Your task to perform on an android device: turn pop-ups off in chrome Image 0: 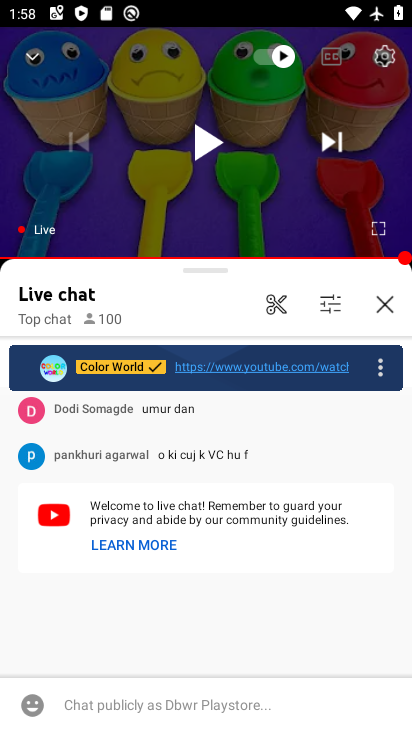
Step 0: press home button
Your task to perform on an android device: turn pop-ups off in chrome Image 1: 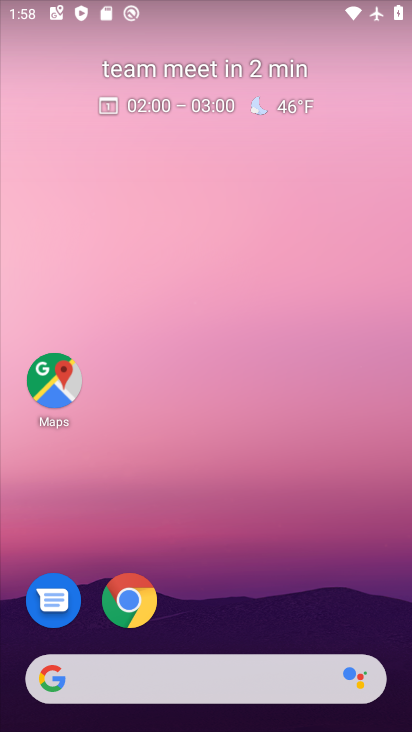
Step 1: click (110, 610)
Your task to perform on an android device: turn pop-ups off in chrome Image 2: 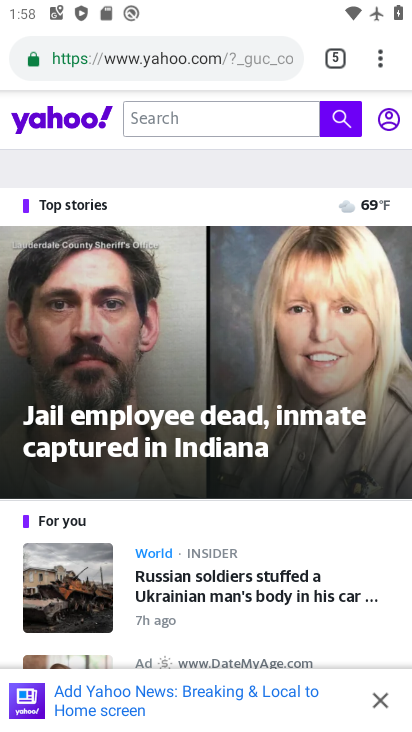
Step 2: click (372, 60)
Your task to perform on an android device: turn pop-ups off in chrome Image 3: 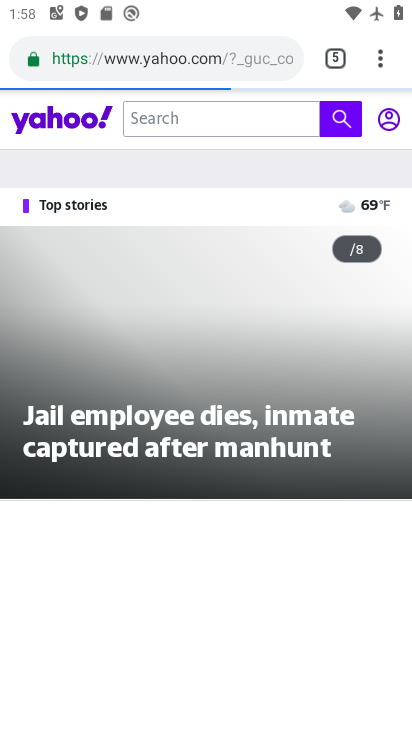
Step 3: drag from (372, 59) to (166, 616)
Your task to perform on an android device: turn pop-ups off in chrome Image 4: 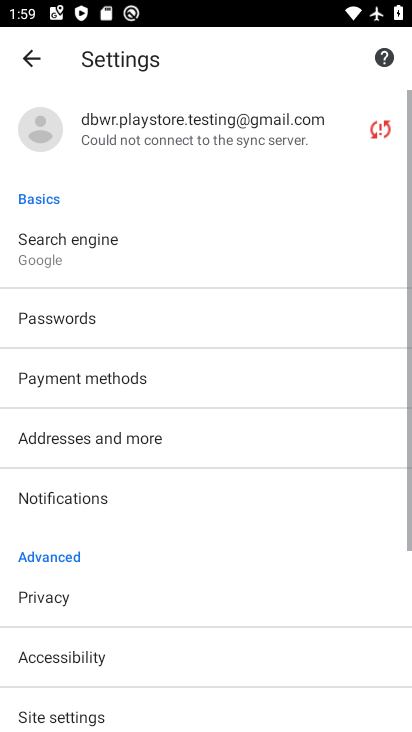
Step 4: drag from (165, 604) to (158, 141)
Your task to perform on an android device: turn pop-ups off in chrome Image 5: 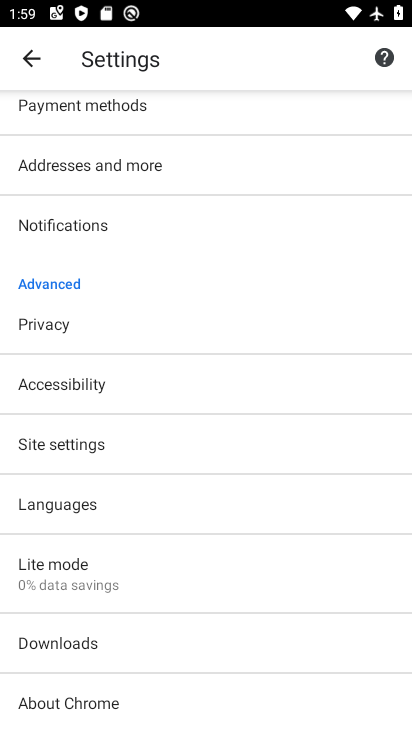
Step 5: click (82, 449)
Your task to perform on an android device: turn pop-ups off in chrome Image 6: 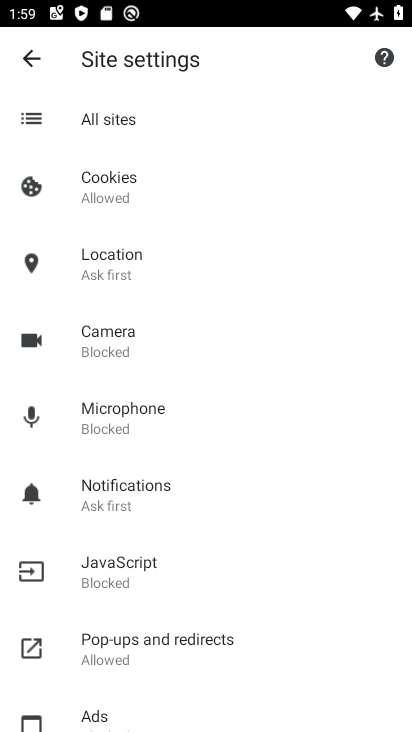
Step 6: click (108, 632)
Your task to perform on an android device: turn pop-ups off in chrome Image 7: 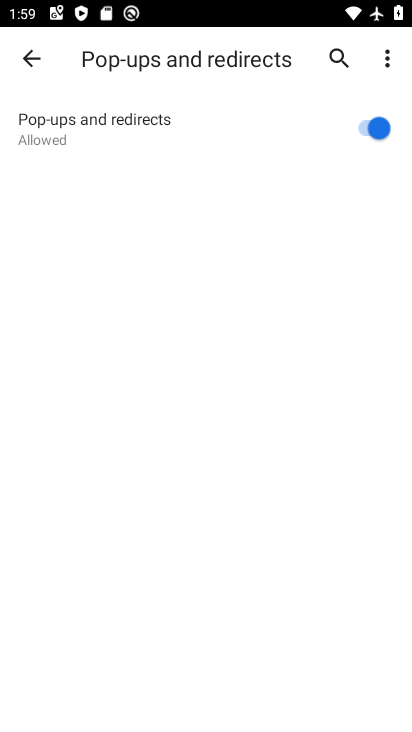
Step 7: click (380, 129)
Your task to perform on an android device: turn pop-ups off in chrome Image 8: 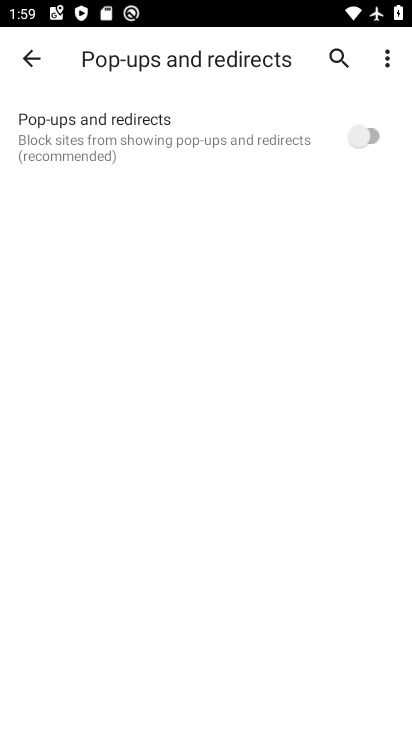
Step 8: task complete